Your task to perform on an android device: Open the web browser Image 0: 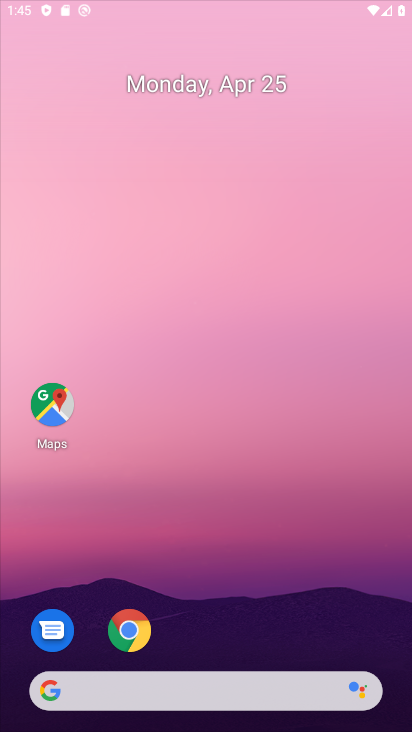
Step 0: drag from (306, 52) to (76, 36)
Your task to perform on an android device: Open the web browser Image 1: 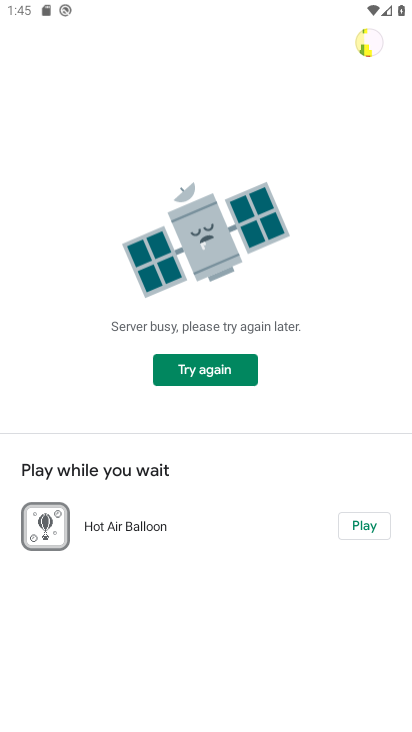
Step 1: press home button
Your task to perform on an android device: Open the web browser Image 2: 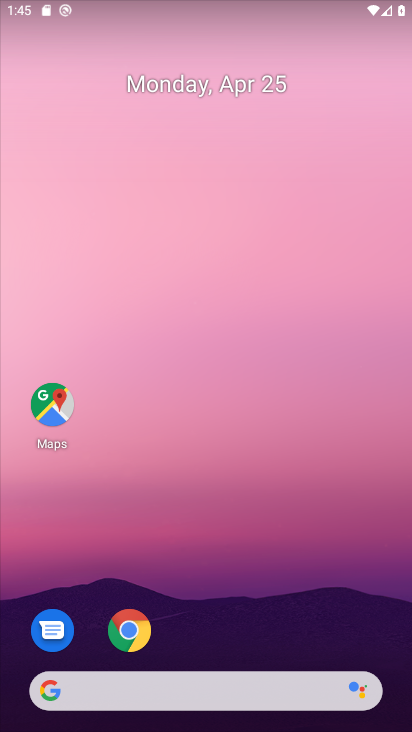
Step 2: click (169, 684)
Your task to perform on an android device: Open the web browser Image 3: 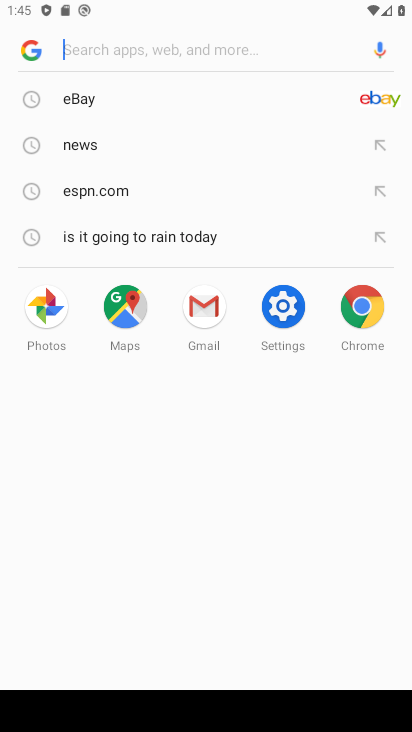
Step 3: task complete